Your task to perform on an android device: check android version Image 0: 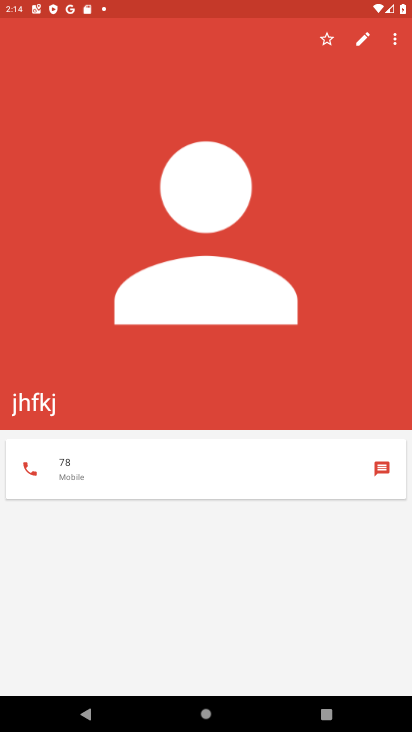
Step 0: press home button
Your task to perform on an android device: check android version Image 1: 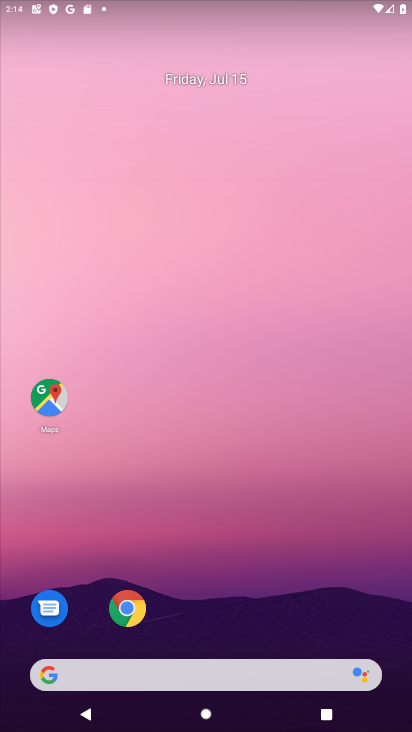
Step 1: drag from (241, 712) to (200, 179)
Your task to perform on an android device: check android version Image 2: 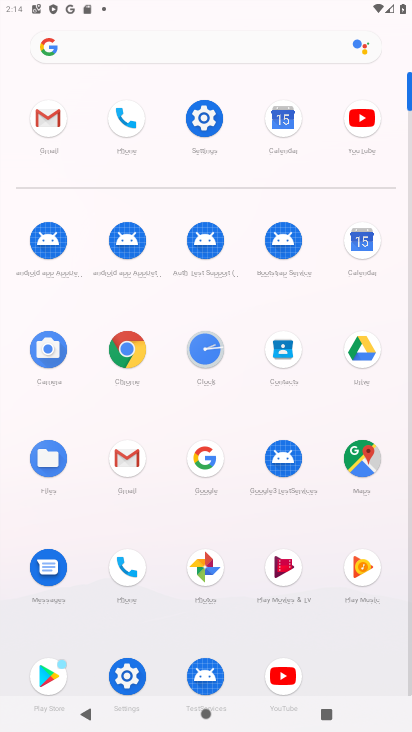
Step 2: click (191, 118)
Your task to perform on an android device: check android version Image 3: 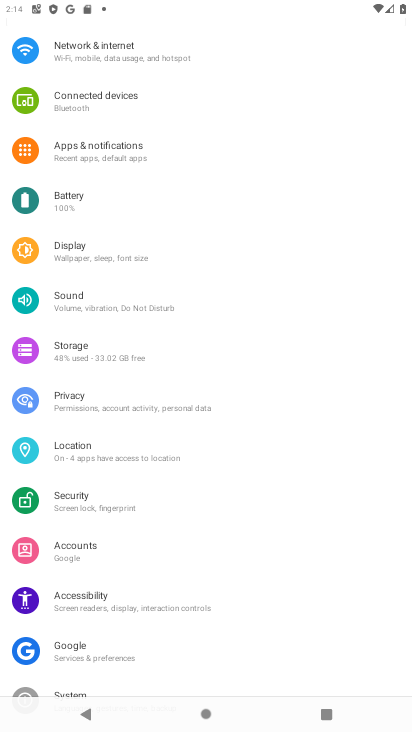
Step 3: drag from (212, 598) to (95, 68)
Your task to perform on an android device: check android version Image 4: 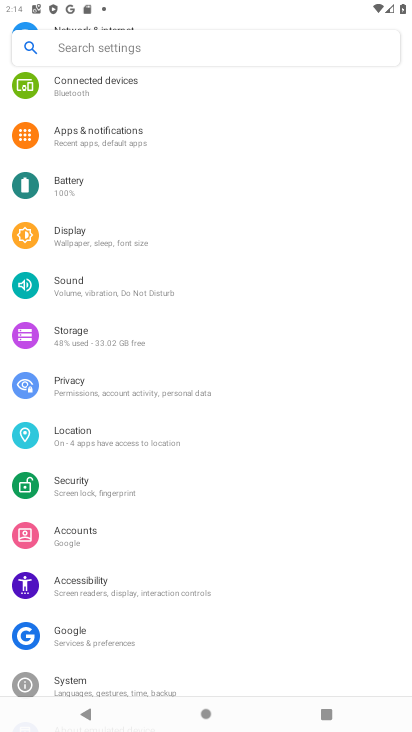
Step 4: drag from (234, 617) to (219, 39)
Your task to perform on an android device: check android version Image 5: 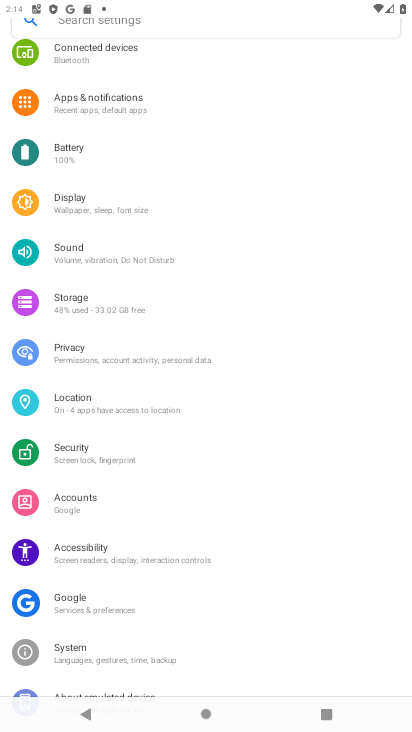
Step 5: drag from (318, 611) to (240, 31)
Your task to perform on an android device: check android version Image 6: 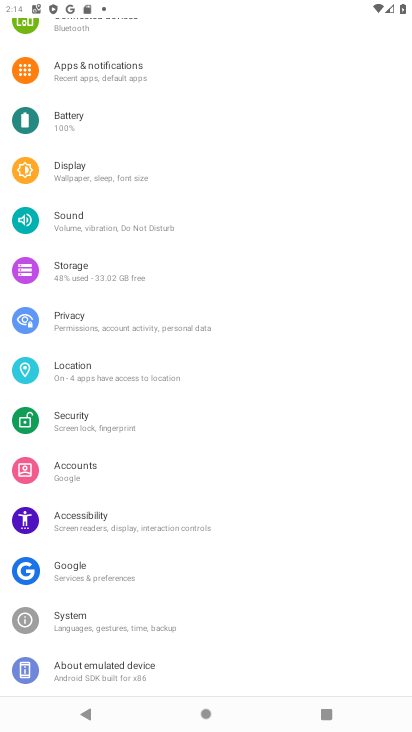
Step 6: click (167, 671)
Your task to perform on an android device: check android version Image 7: 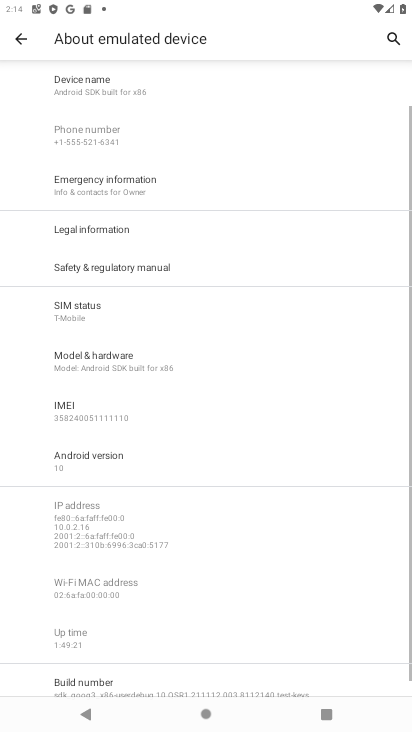
Step 7: task complete